Your task to perform on an android device: Open display settings Image 0: 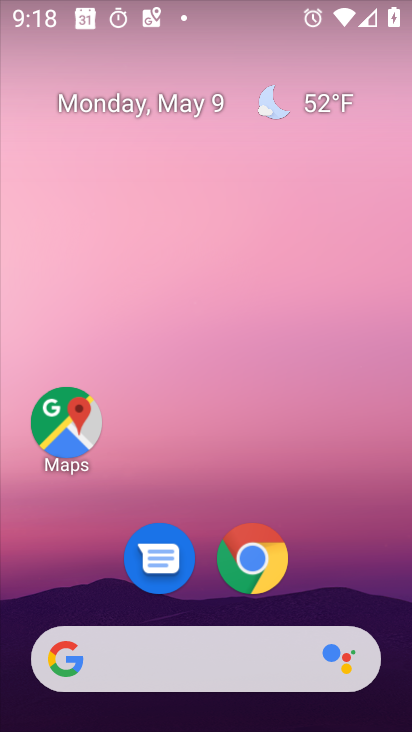
Step 0: drag from (191, 609) to (274, 34)
Your task to perform on an android device: Open display settings Image 1: 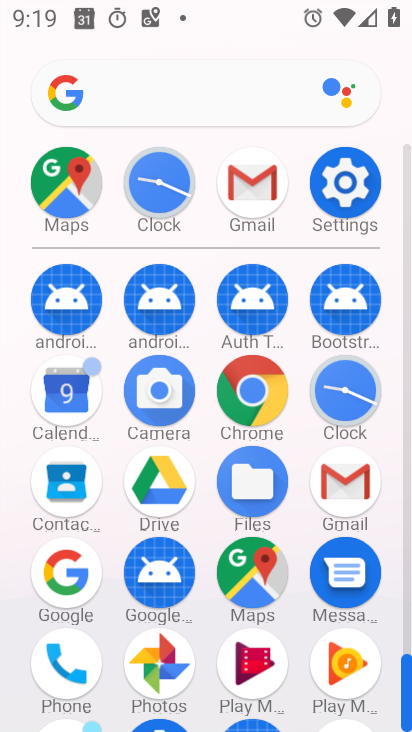
Step 1: click (357, 178)
Your task to perform on an android device: Open display settings Image 2: 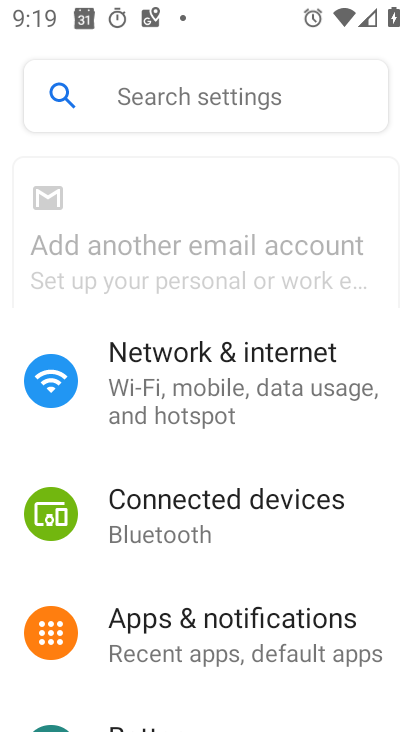
Step 2: drag from (194, 572) to (268, 81)
Your task to perform on an android device: Open display settings Image 3: 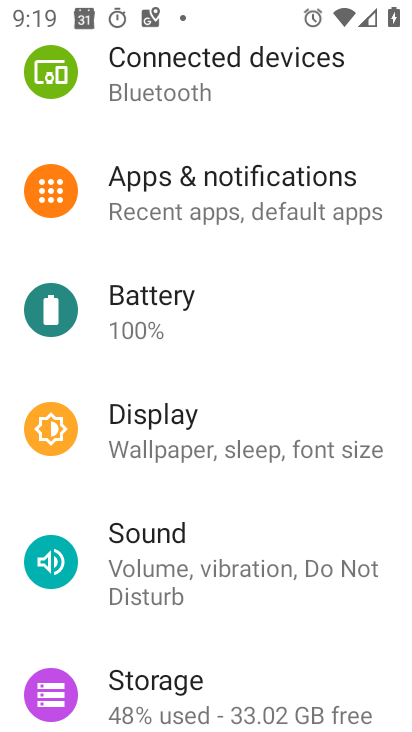
Step 3: click (185, 425)
Your task to perform on an android device: Open display settings Image 4: 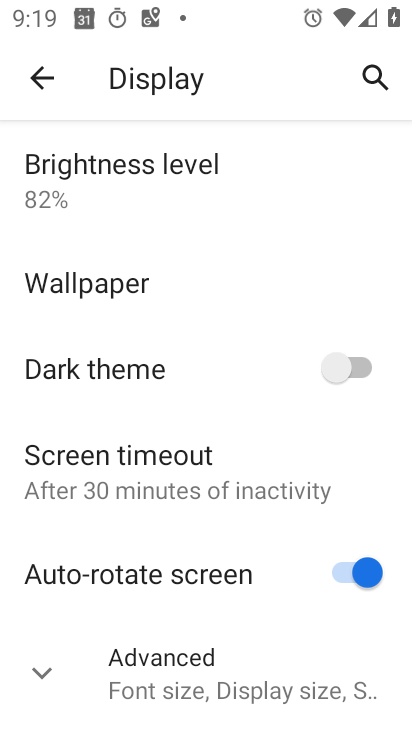
Step 4: task complete